Your task to perform on an android device: Open Amazon Image 0: 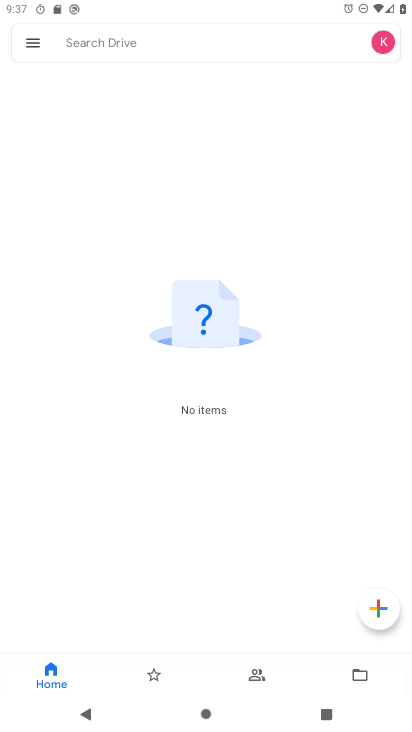
Step 0: press home button
Your task to perform on an android device: Open Amazon Image 1: 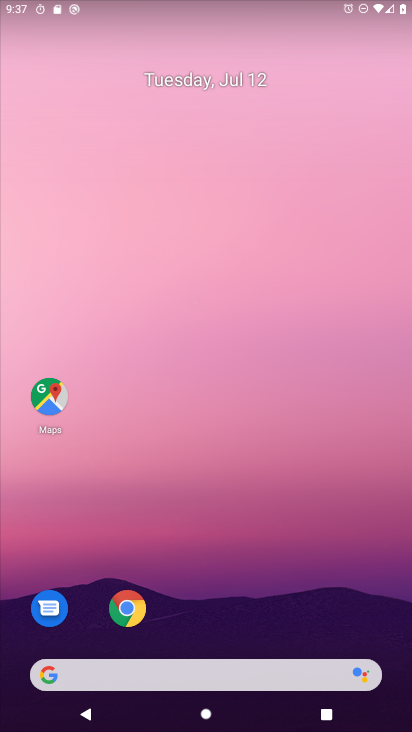
Step 1: click (125, 610)
Your task to perform on an android device: Open Amazon Image 2: 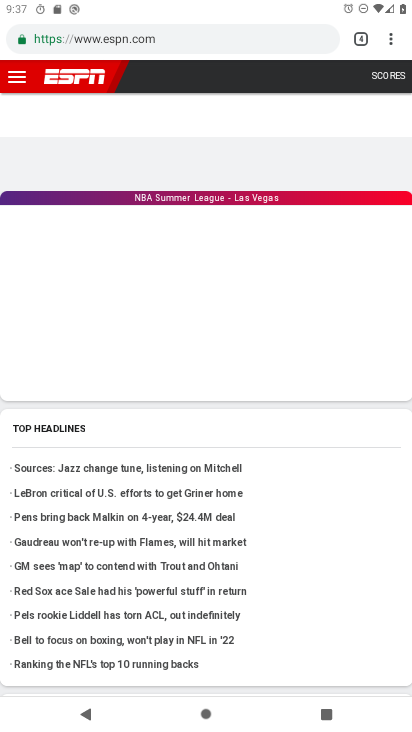
Step 2: click (356, 32)
Your task to perform on an android device: Open Amazon Image 3: 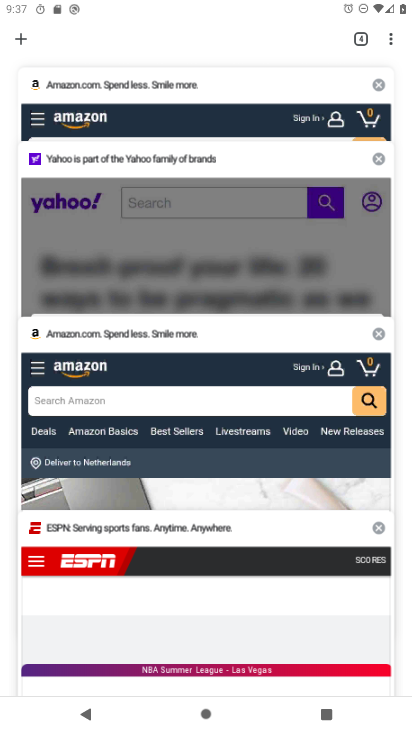
Step 3: click (158, 127)
Your task to perform on an android device: Open Amazon Image 4: 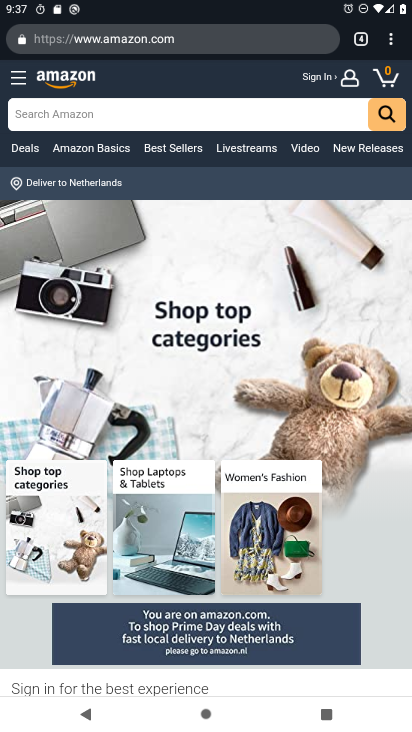
Step 4: task complete